Your task to perform on an android device: Go to accessibility settings Image 0: 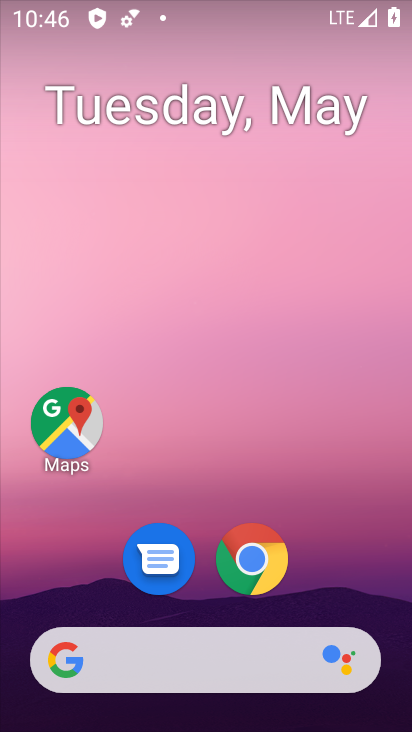
Step 0: drag from (362, 578) to (347, 130)
Your task to perform on an android device: Go to accessibility settings Image 1: 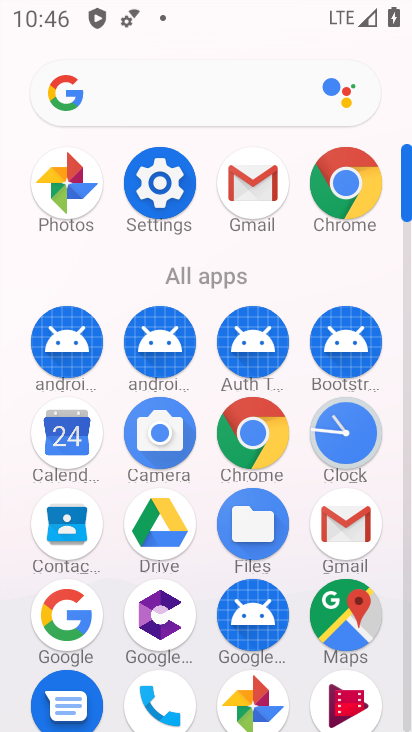
Step 1: click (154, 182)
Your task to perform on an android device: Go to accessibility settings Image 2: 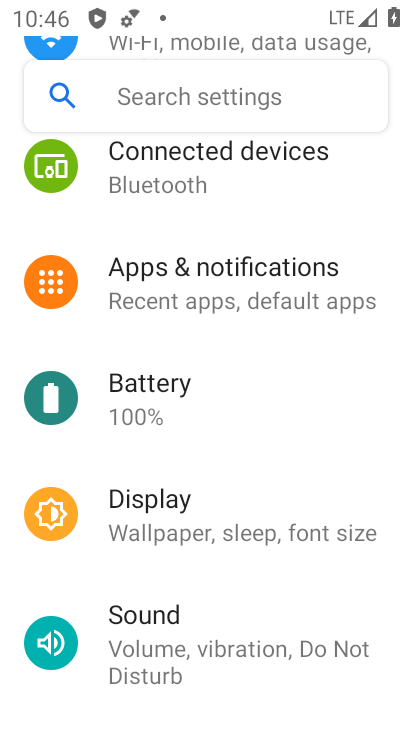
Step 2: drag from (220, 570) to (252, 70)
Your task to perform on an android device: Go to accessibility settings Image 3: 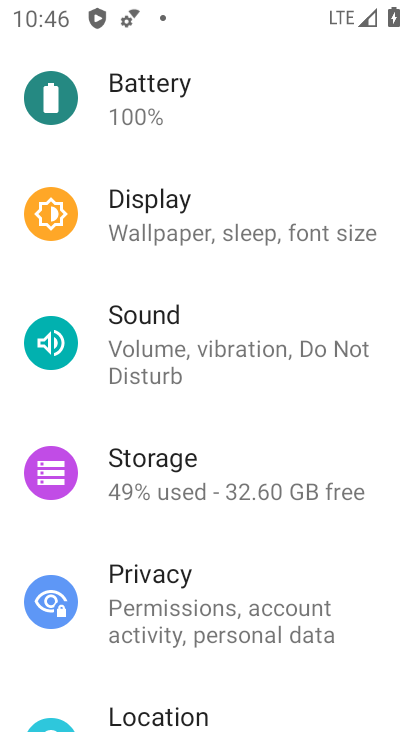
Step 3: drag from (231, 599) to (291, 227)
Your task to perform on an android device: Go to accessibility settings Image 4: 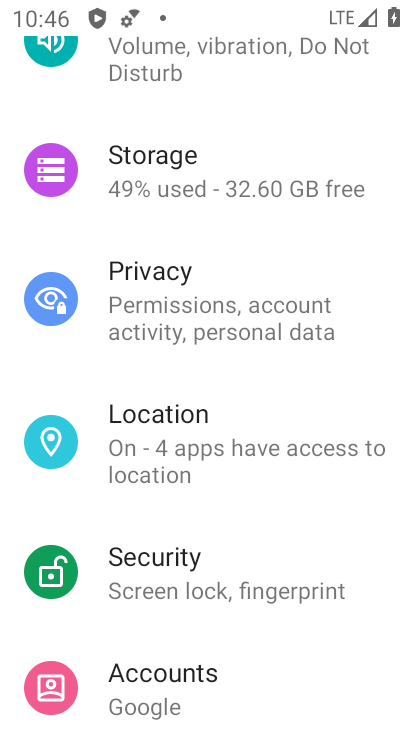
Step 4: drag from (234, 547) to (246, 143)
Your task to perform on an android device: Go to accessibility settings Image 5: 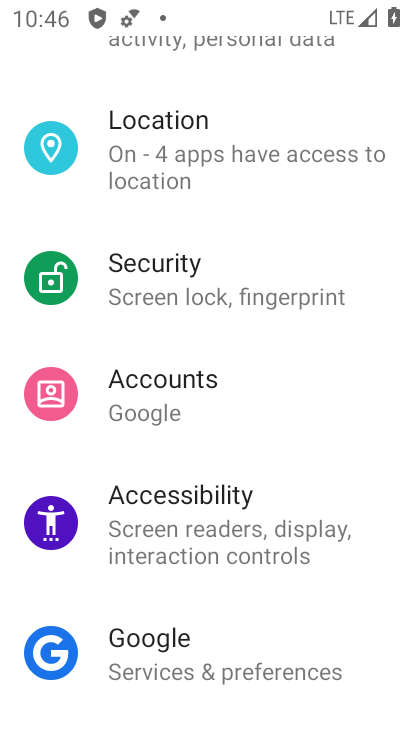
Step 5: click (167, 540)
Your task to perform on an android device: Go to accessibility settings Image 6: 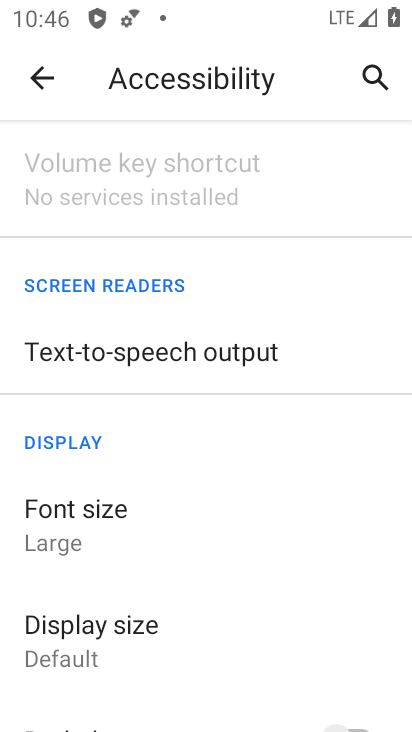
Step 6: task complete